Your task to perform on an android device: Go to privacy settings Image 0: 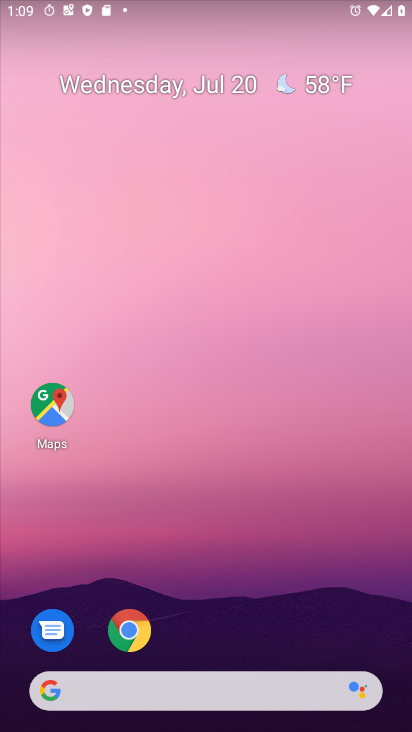
Step 0: press home button
Your task to perform on an android device: Go to privacy settings Image 1: 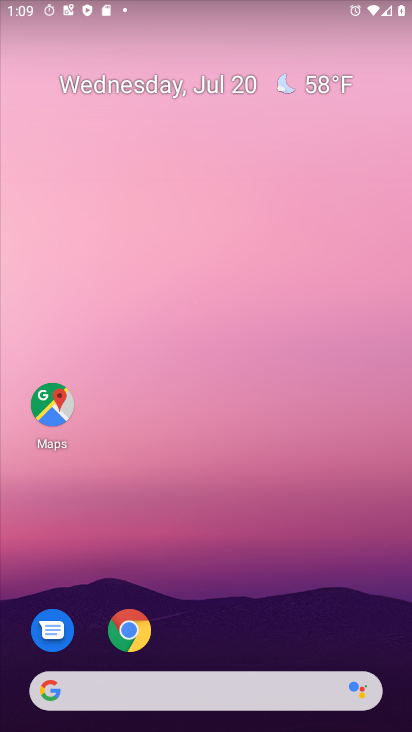
Step 1: drag from (183, 698) to (243, 193)
Your task to perform on an android device: Go to privacy settings Image 2: 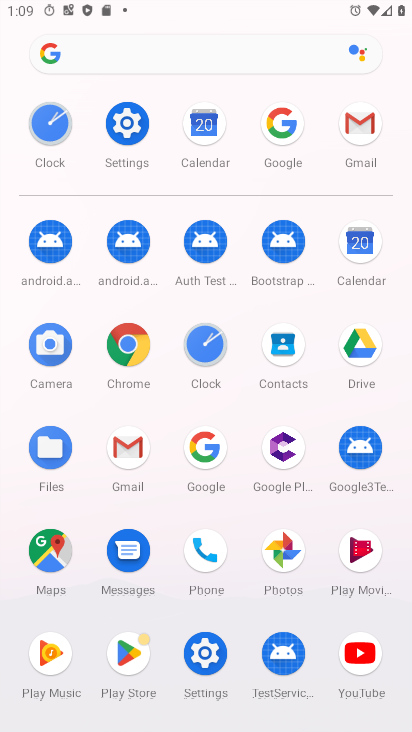
Step 2: click (128, 124)
Your task to perform on an android device: Go to privacy settings Image 3: 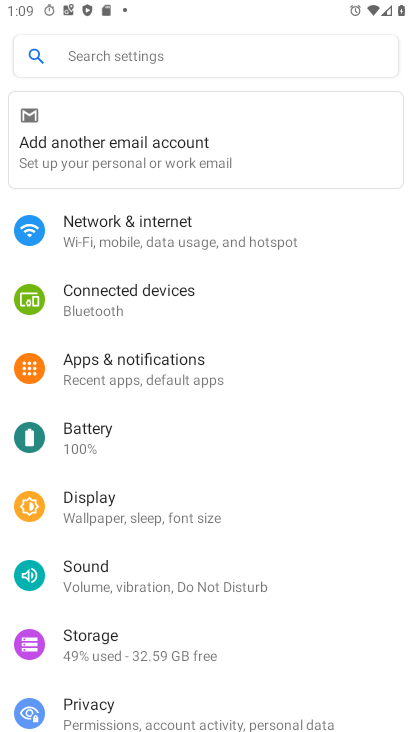
Step 3: drag from (331, 349) to (382, 247)
Your task to perform on an android device: Go to privacy settings Image 4: 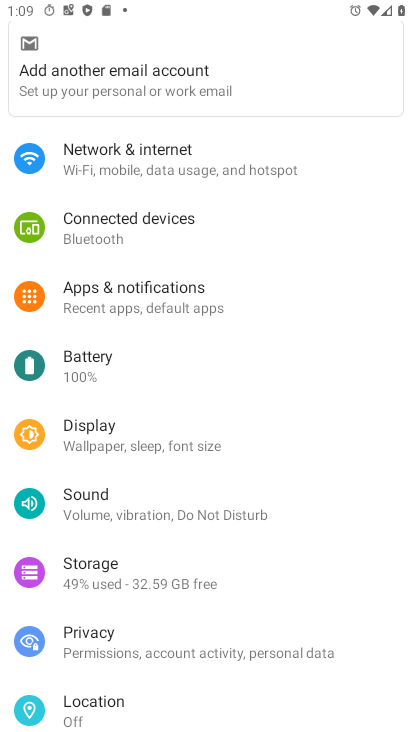
Step 4: click (93, 650)
Your task to perform on an android device: Go to privacy settings Image 5: 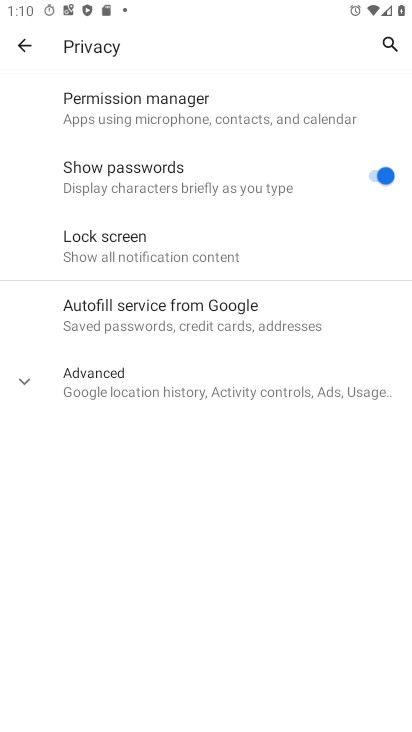
Step 5: task complete